Your task to perform on an android device: toggle translation in the chrome app Image 0: 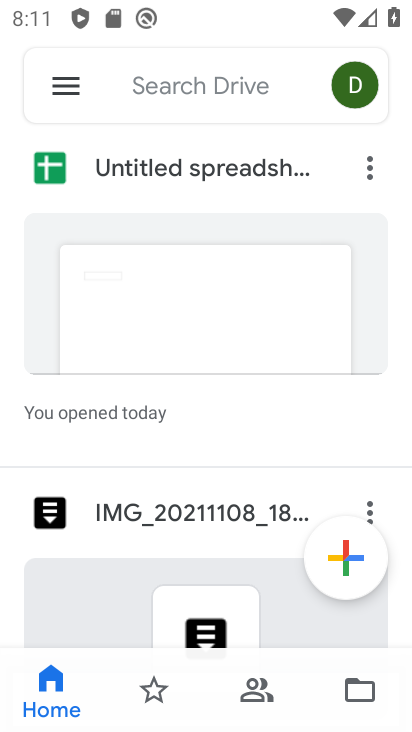
Step 0: press home button
Your task to perform on an android device: toggle translation in the chrome app Image 1: 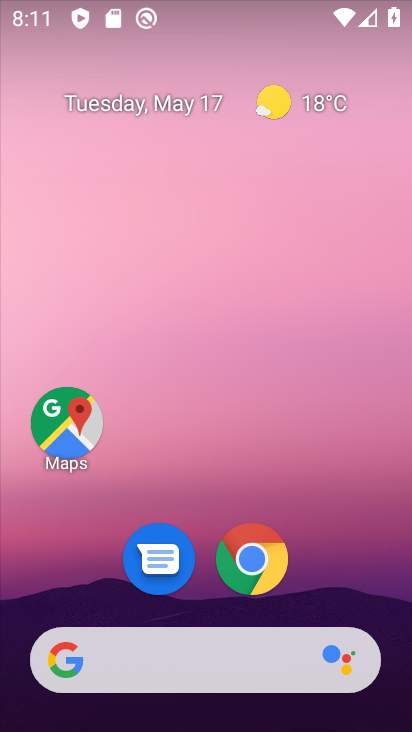
Step 1: click (246, 552)
Your task to perform on an android device: toggle translation in the chrome app Image 2: 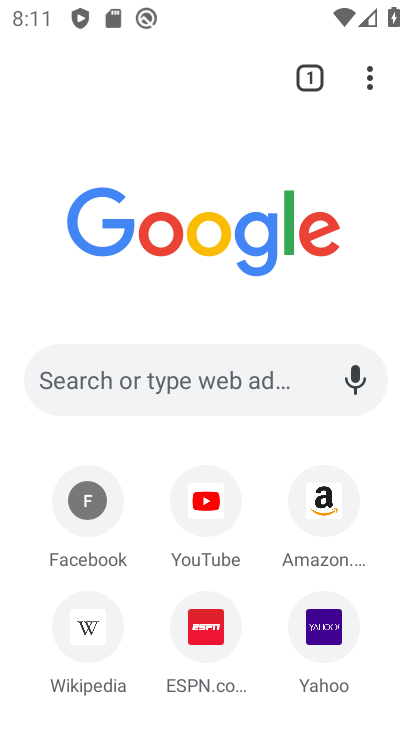
Step 2: click (370, 92)
Your task to perform on an android device: toggle translation in the chrome app Image 3: 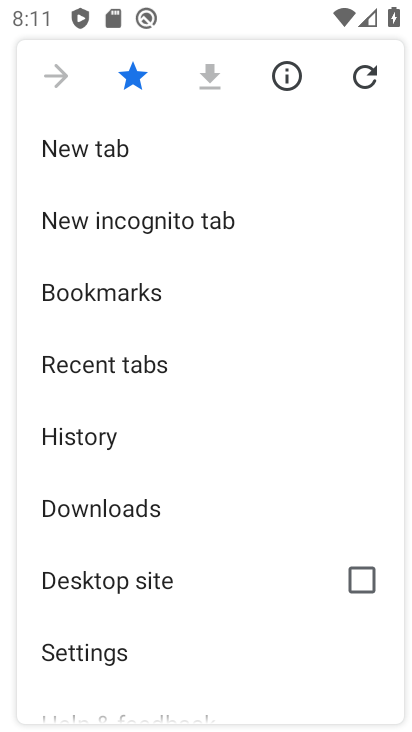
Step 3: click (119, 649)
Your task to perform on an android device: toggle translation in the chrome app Image 4: 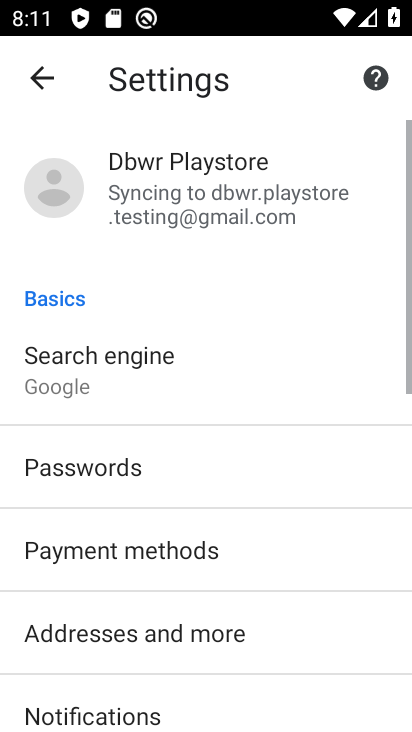
Step 4: drag from (166, 664) to (157, 75)
Your task to perform on an android device: toggle translation in the chrome app Image 5: 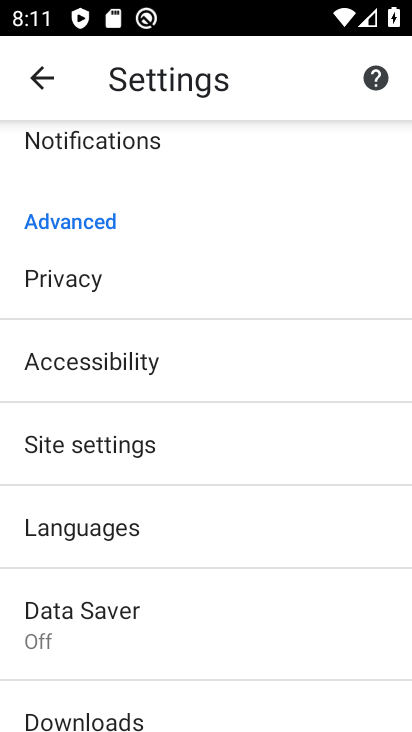
Step 5: click (144, 531)
Your task to perform on an android device: toggle translation in the chrome app Image 6: 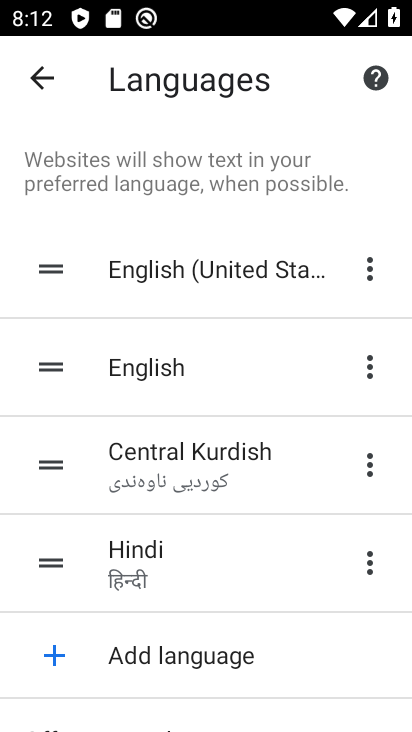
Step 6: drag from (219, 681) to (232, 209)
Your task to perform on an android device: toggle translation in the chrome app Image 7: 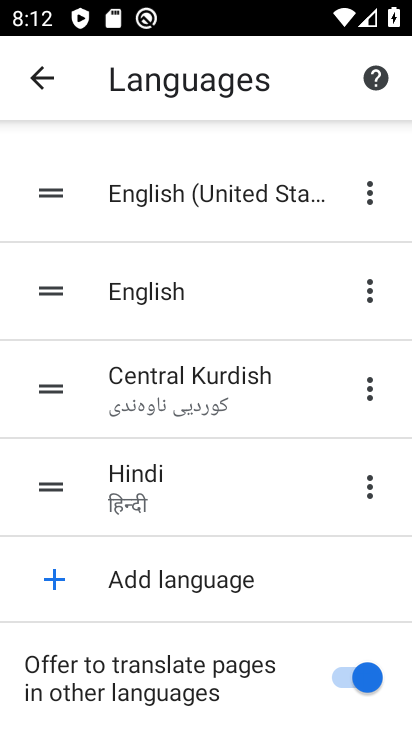
Step 7: click (372, 680)
Your task to perform on an android device: toggle translation in the chrome app Image 8: 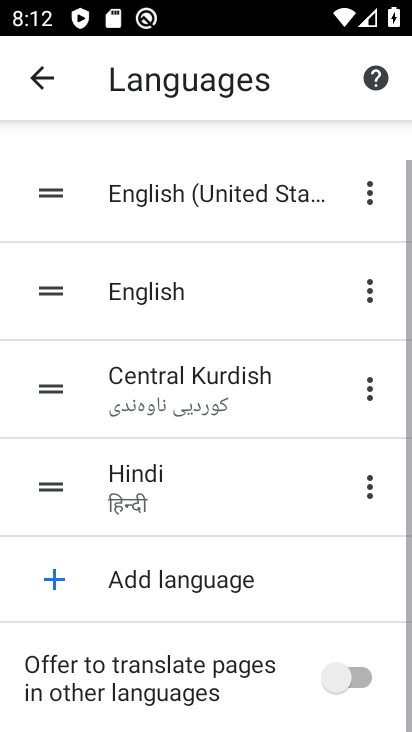
Step 8: task complete